Your task to perform on an android device: Go to Google maps Image 0: 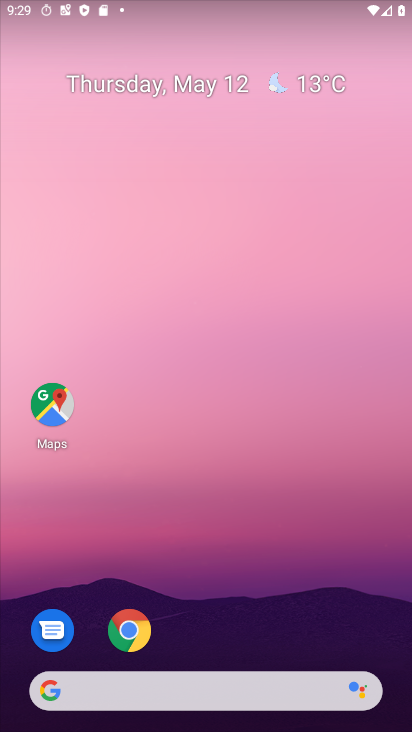
Step 0: drag from (212, 675) to (211, 91)
Your task to perform on an android device: Go to Google maps Image 1: 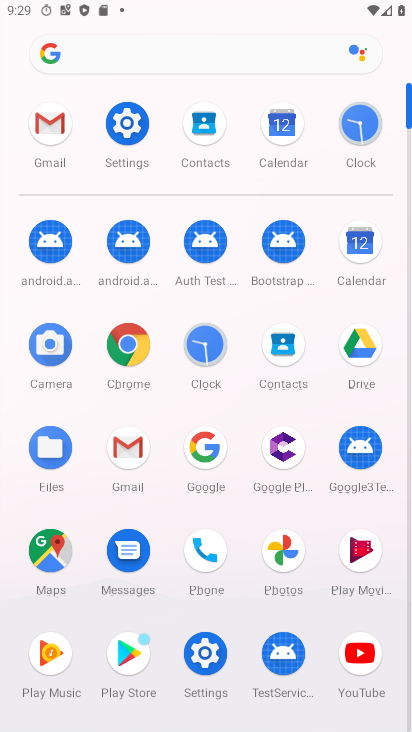
Step 1: click (40, 553)
Your task to perform on an android device: Go to Google maps Image 2: 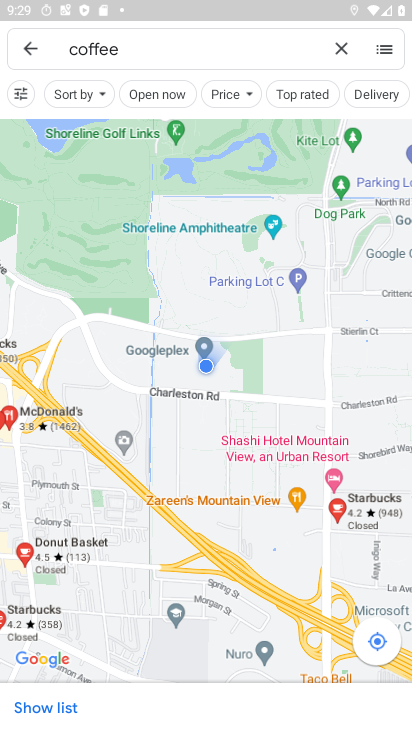
Step 2: task complete